Your task to perform on an android device: turn off notifications settings in the gmail app Image 0: 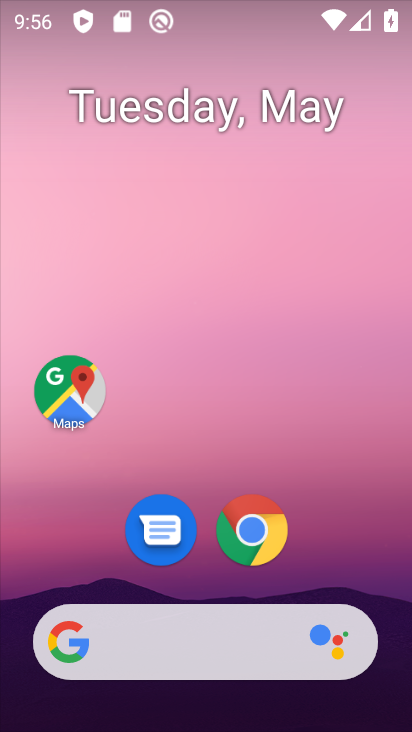
Step 0: drag from (161, 582) to (273, 121)
Your task to perform on an android device: turn off notifications settings in the gmail app Image 1: 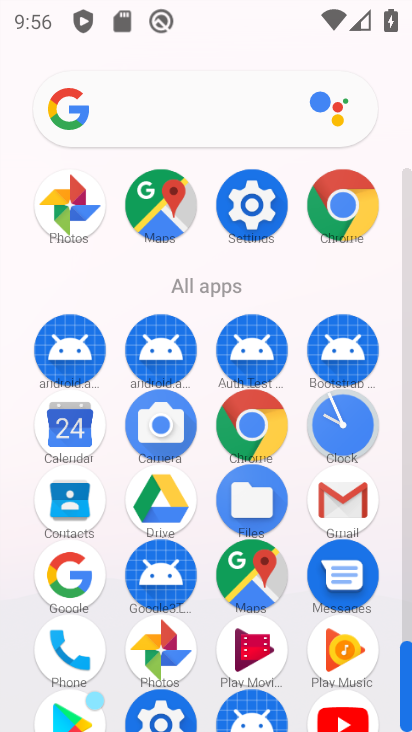
Step 1: click (350, 491)
Your task to perform on an android device: turn off notifications settings in the gmail app Image 2: 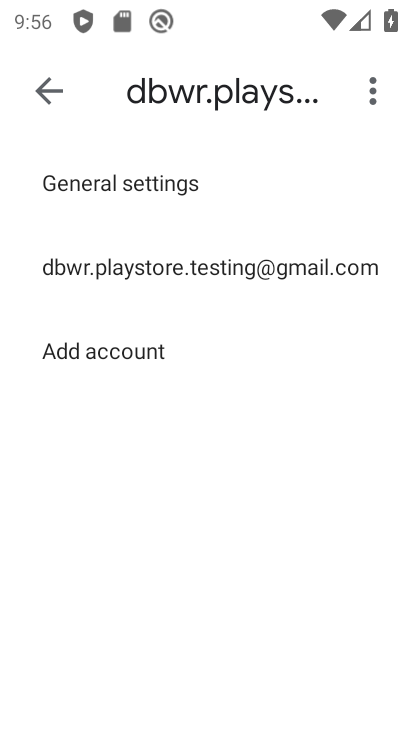
Step 2: click (153, 260)
Your task to perform on an android device: turn off notifications settings in the gmail app Image 3: 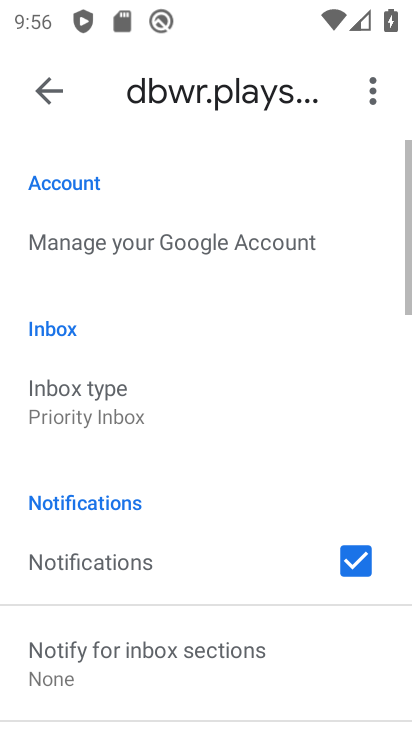
Step 3: drag from (154, 548) to (236, 71)
Your task to perform on an android device: turn off notifications settings in the gmail app Image 4: 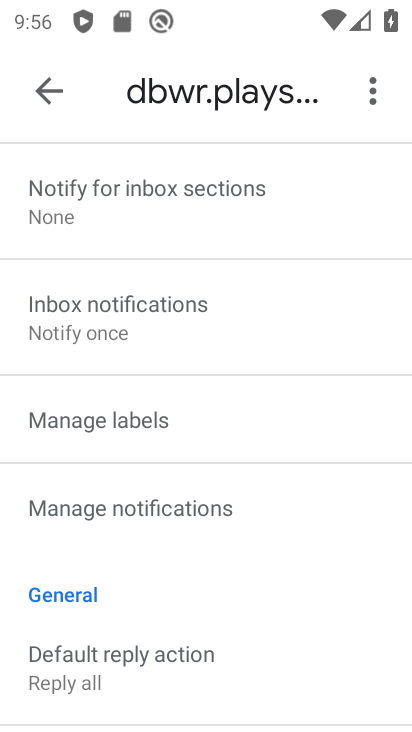
Step 4: click (105, 506)
Your task to perform on an android device: turn off notifications settings in the gmail app Image 5: 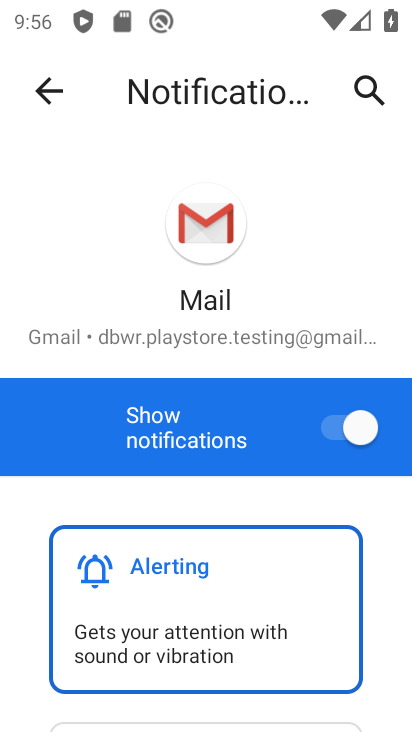
Step 5: click (344, 425)
Your task to perform on an android device: turn off notifications settings in the gmail app Image 6: 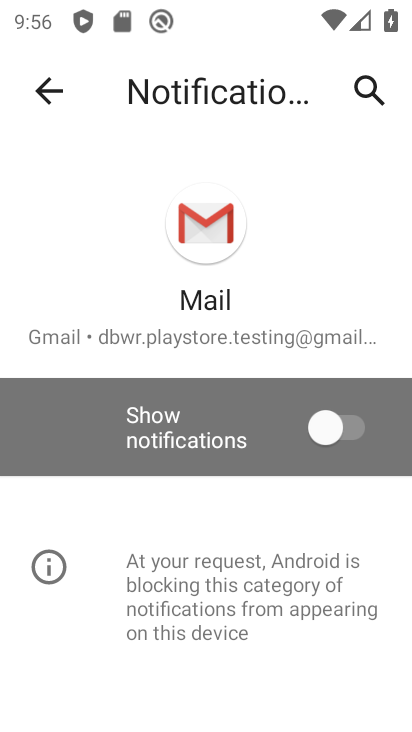
Step 6: task complete